Your task to perform on an android device: turn pop-ups off in chrome Image 0: 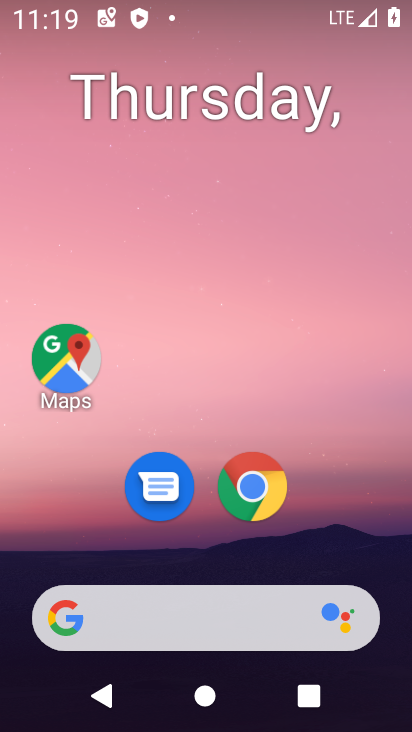
Step 0: click (282, 470)
Your task to perform on an android device: turn pop-ups off in chrome Image 1: 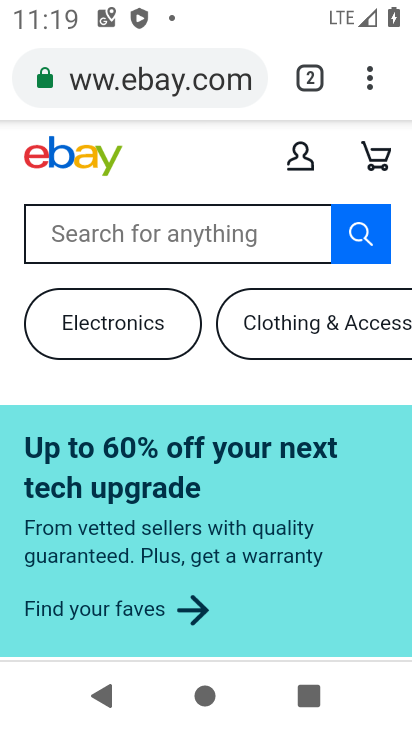
Step 1: drag from (368, 69) to (122, 550)
Your task to perform on an android device: turn pop-ups off in chrome Image 2: 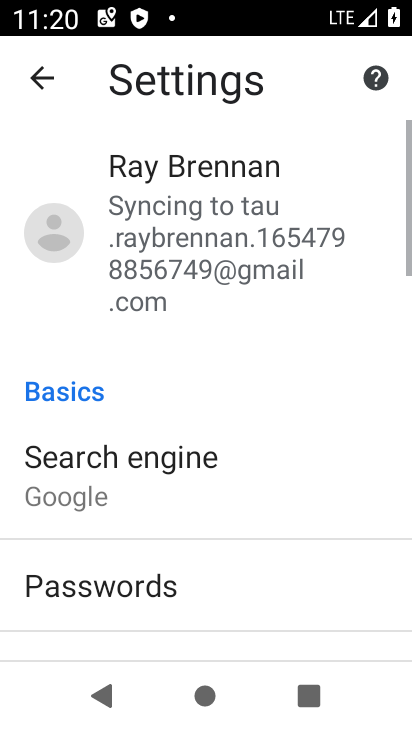
Step 2: drag from (130, 565) to (258, 127)
Your task to perform on an android device: turn pop-ups off in chrome Image 3: 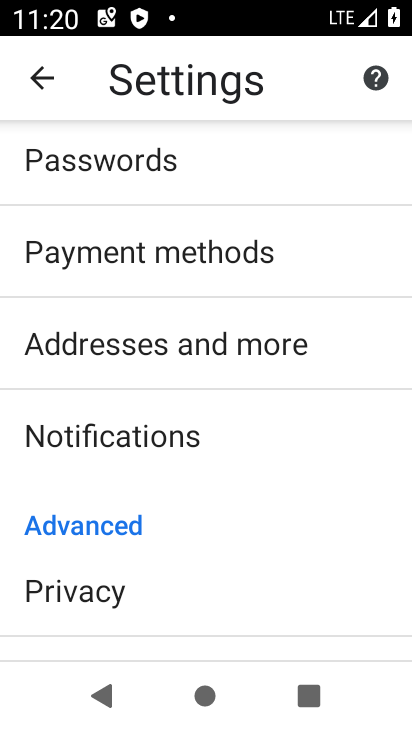
Step 3: drag from (227, 610) to (233, 120)
Your task to perform on an android device: turn pop-ups off in chrome Image 4: 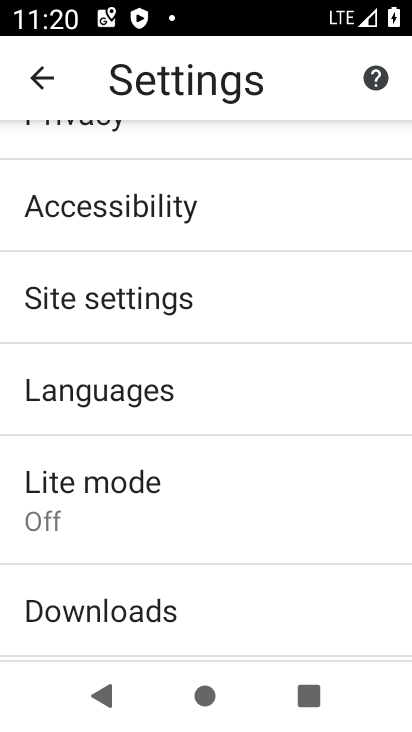
Step 4: click (102, 295)
Your task to perform on an android device: turn pop-ups off in chrome Image 5: 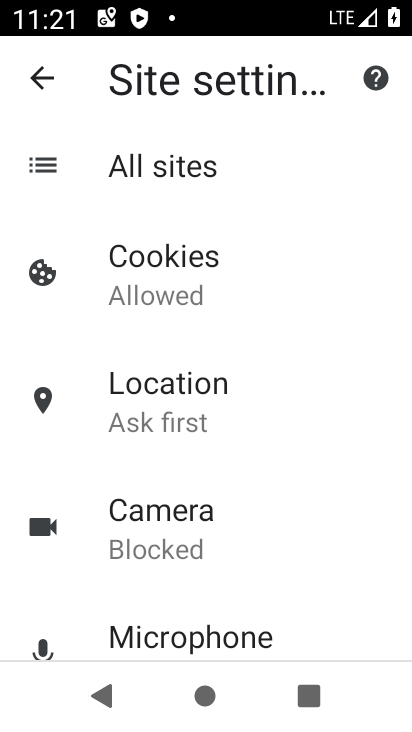
Step 5: drag from (207, 582) to (284, 95)
Your task to perform on an android device: turn pop-ups off in chrome Image 6: 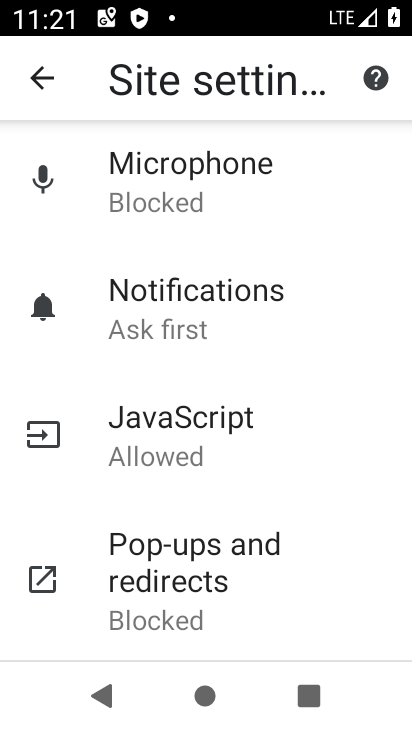
Step 6: click (197, 580)
Your task to perform on an android device: turn pop-ups off in chrome Image 7: 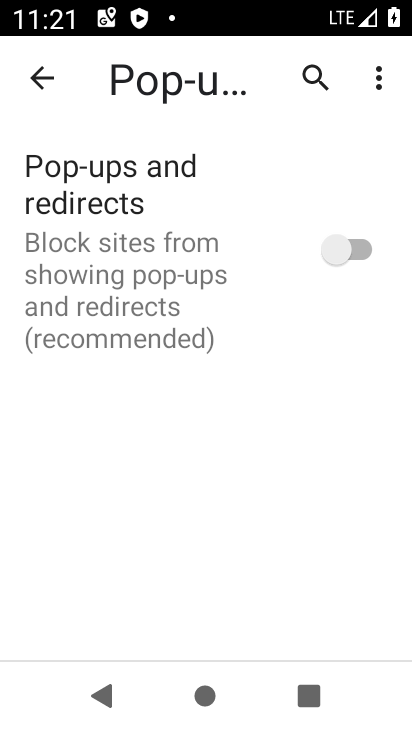
Step 7: task complete